Your task to perform on an android device: install app "Move to iOS" Image 0: 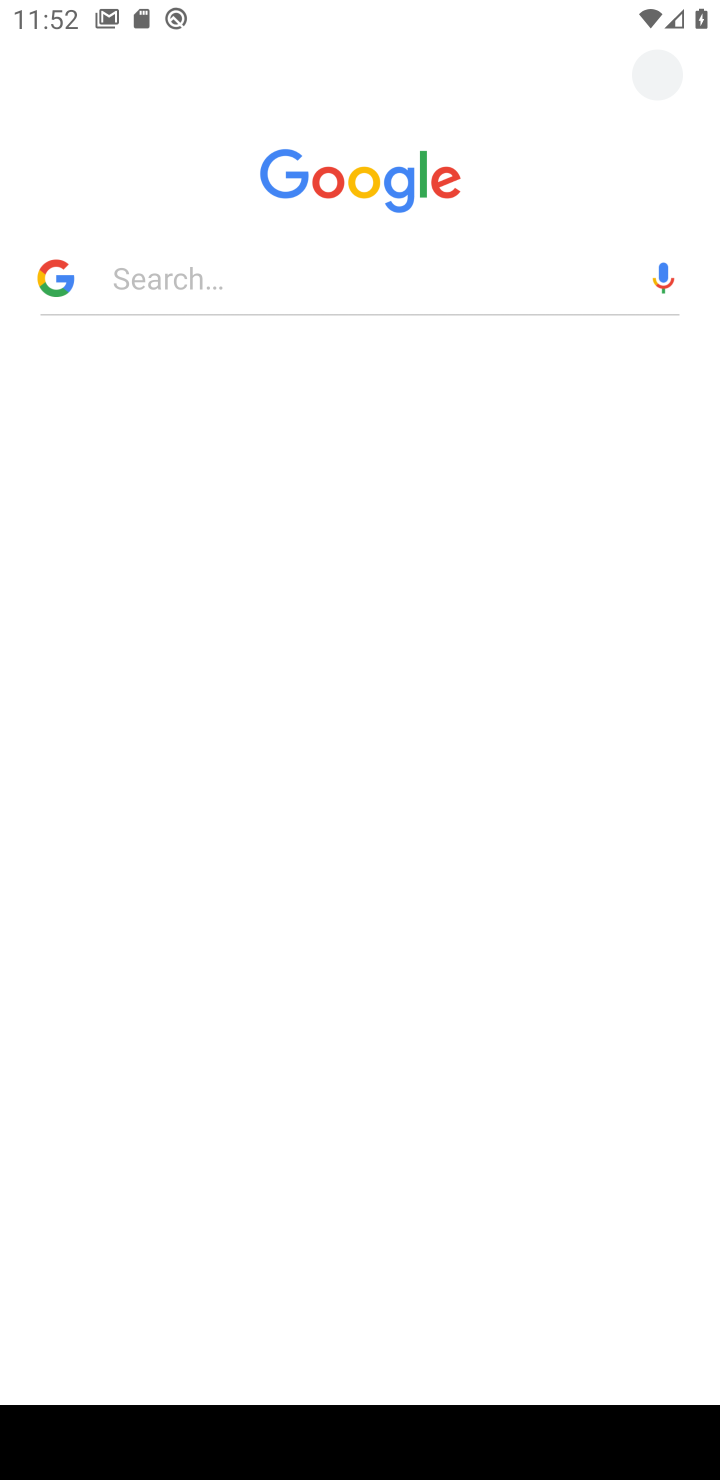
Step 0: press home button
Your task to perform on an android device: install app "Move to iOS" Image 1: 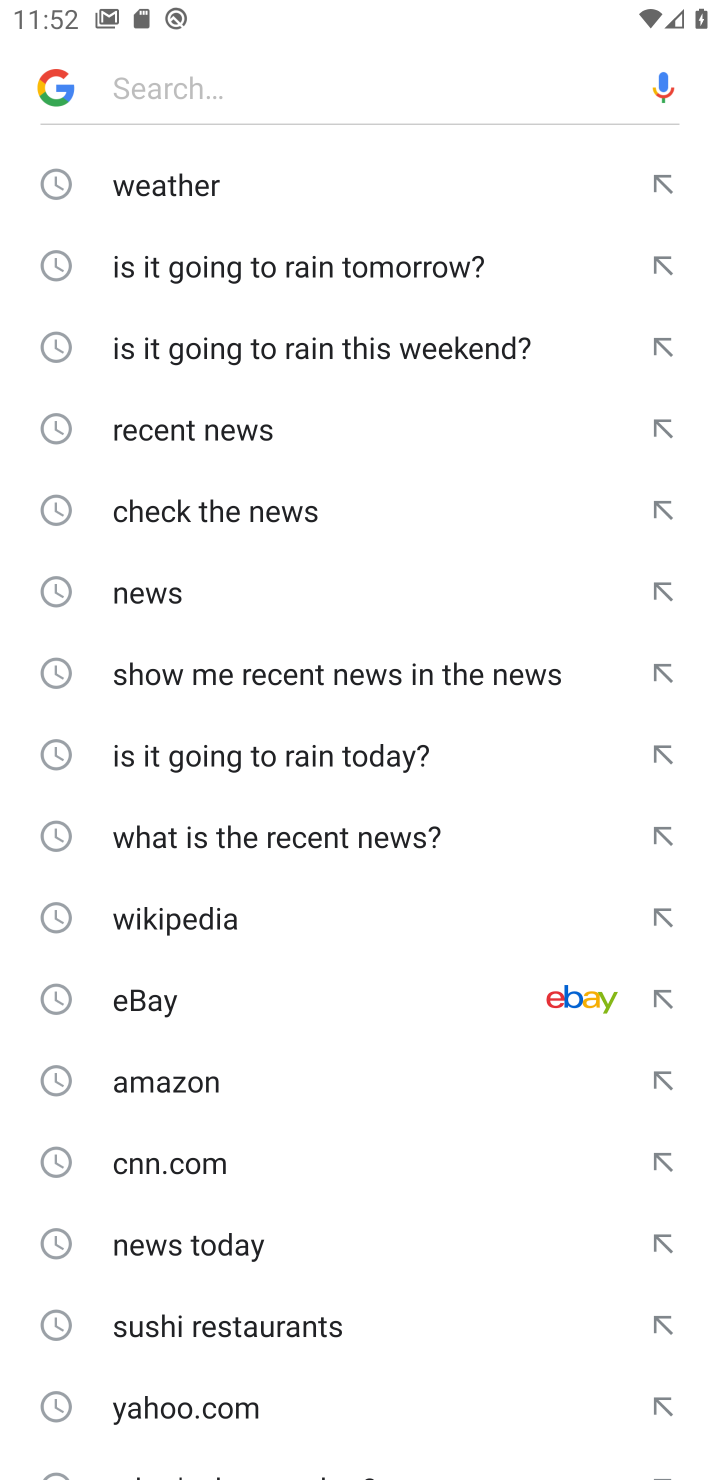
Step 1: press home button
Your task to perform on an android device: install app "Move to iOS" Image 2: 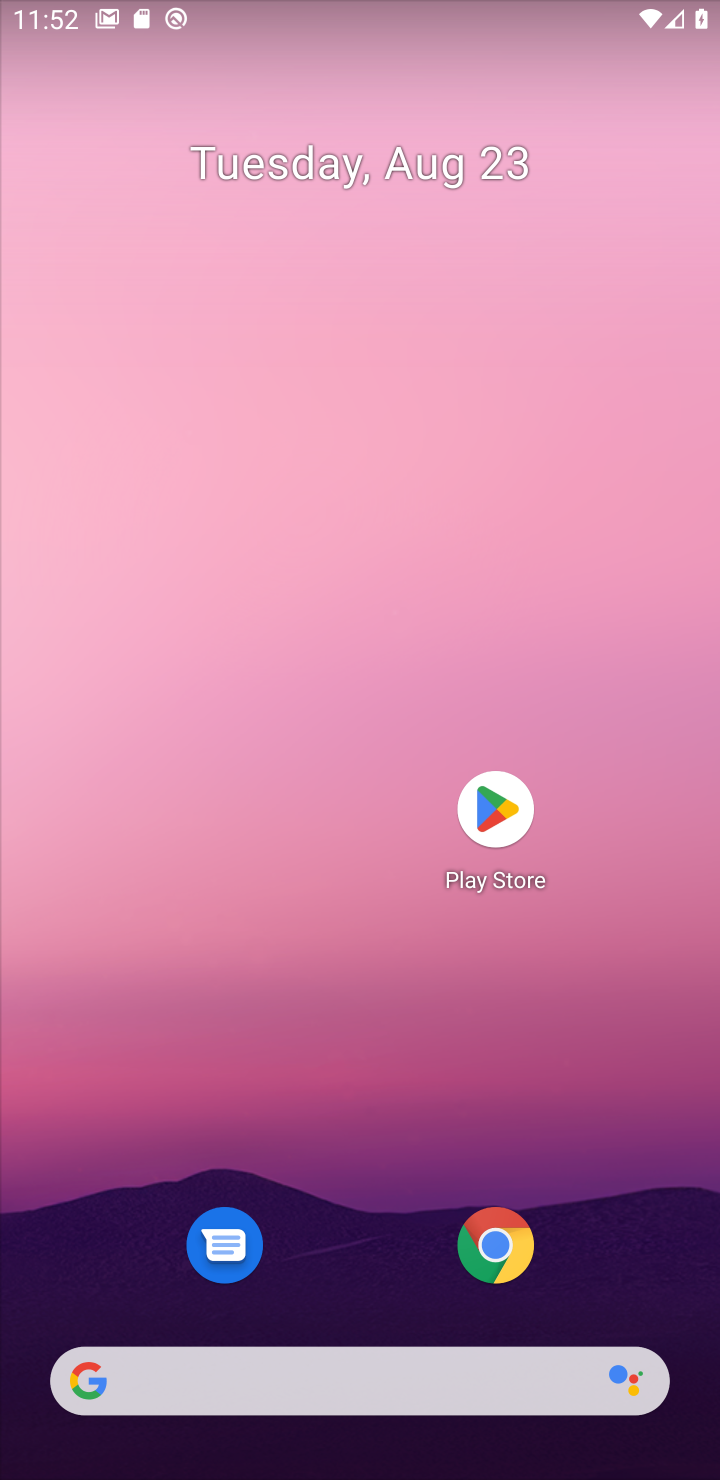
Step 2: press home button
Your task to perform on an android device: install app "Move to iOS" Image 3: 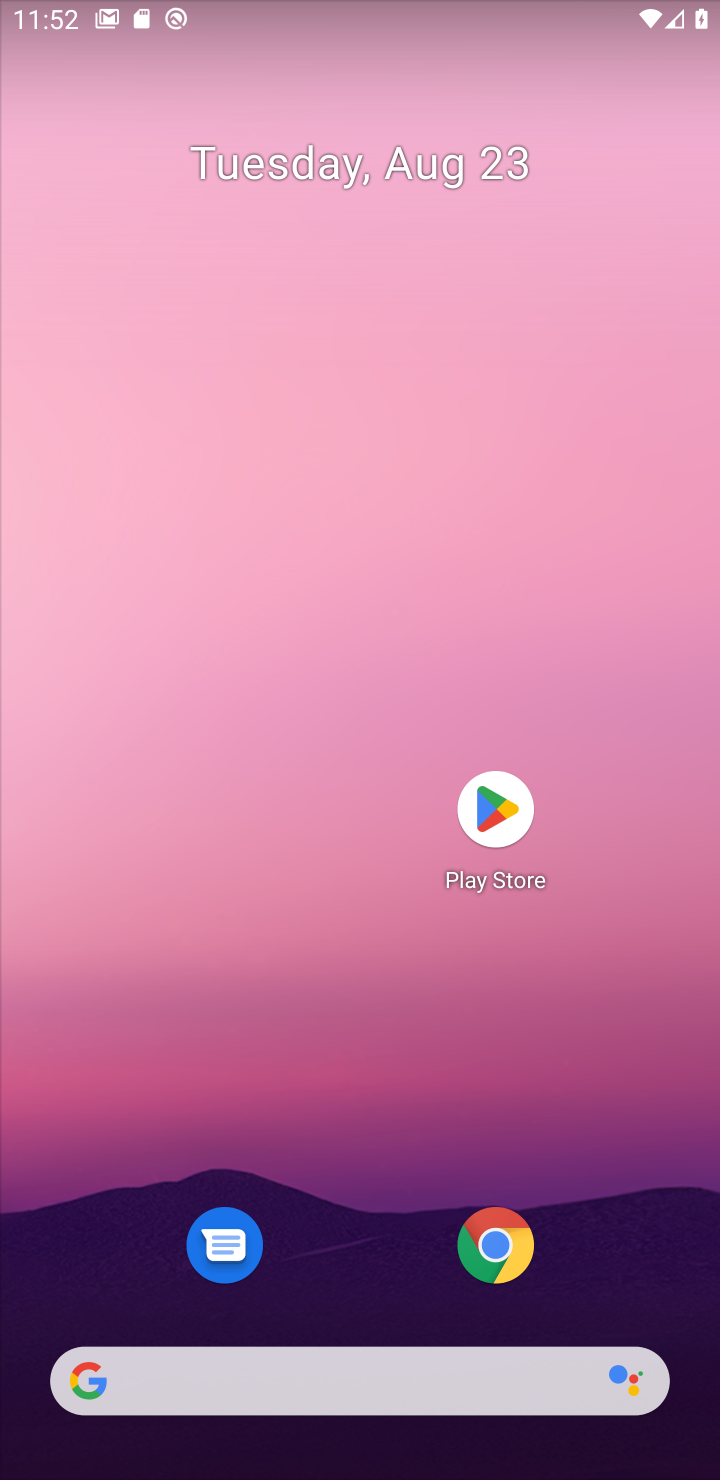
Step 3: click (484, 815)
Your task to perform on an android device: install app "Move to iOS" Image 4: 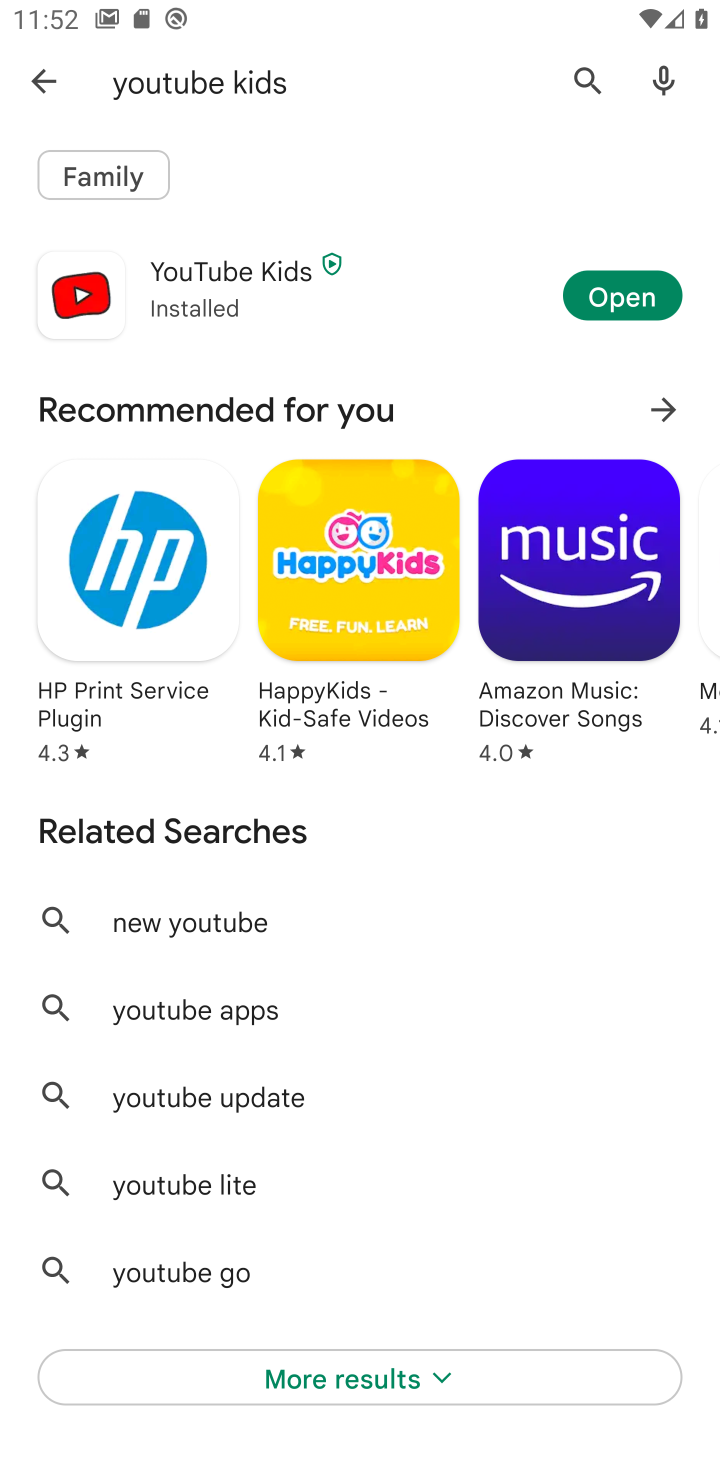
Step 4: click (590, 77)
Your task to perform on an android device: install app "Move to iOS" Image 5: 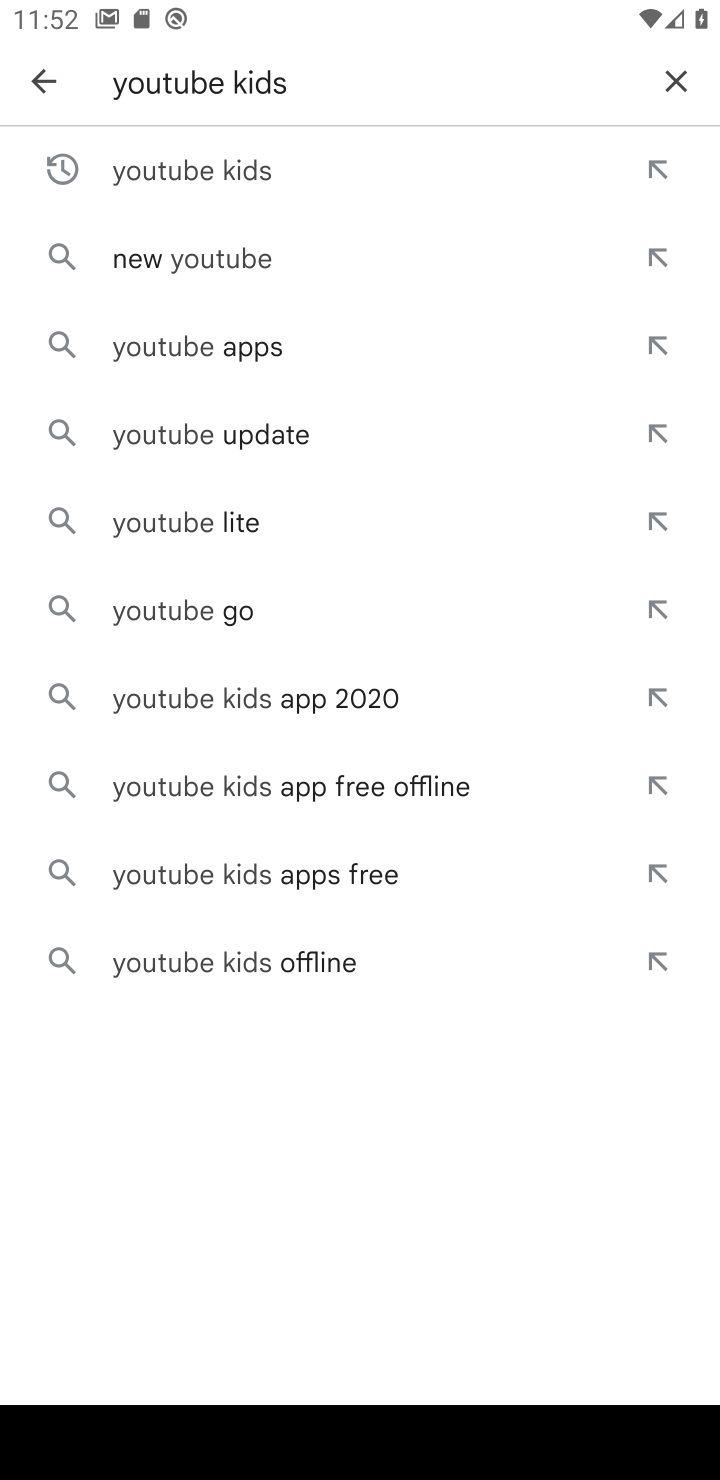
Step 5: click (674, 76)
Your task to perform on an android device: install app "Move to iOS" Image 6: 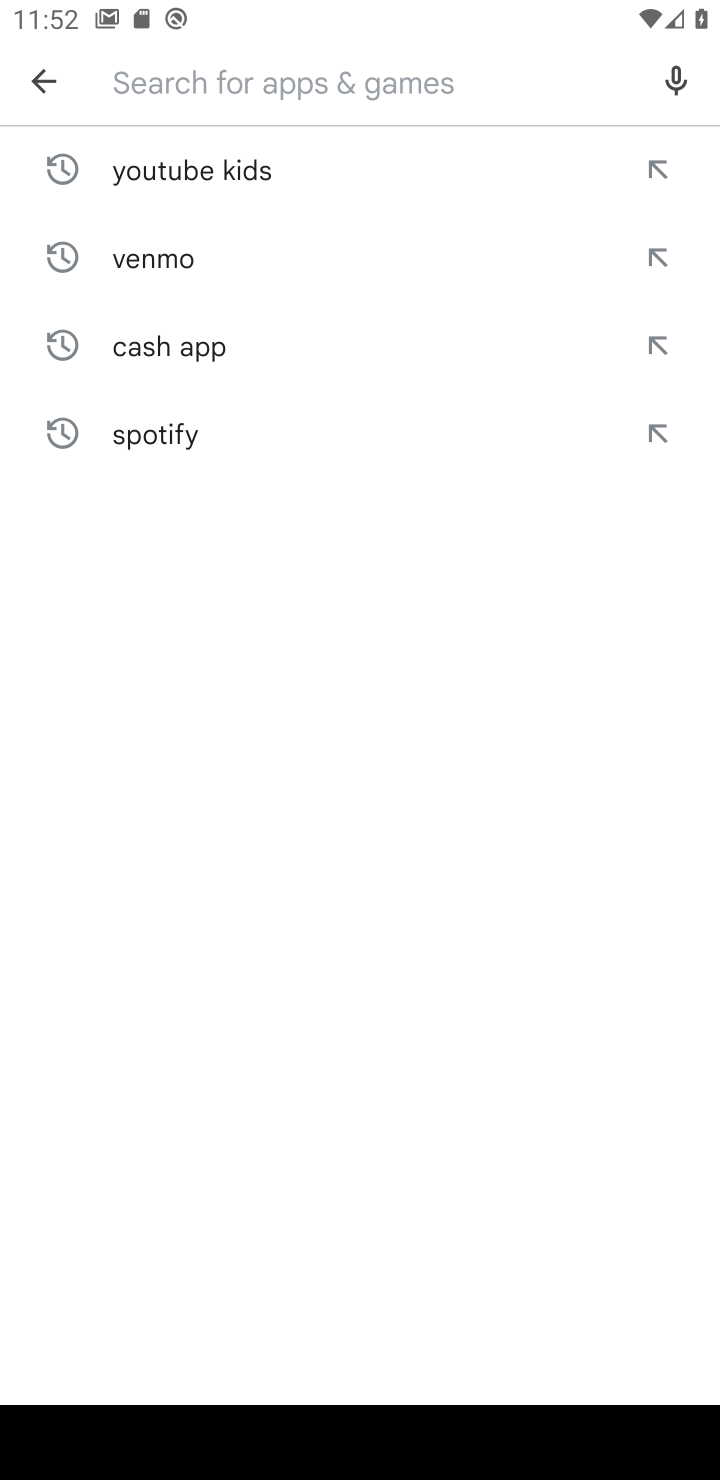
Step 6: type "Move to iOS"
Your task to perform on an android device: install app "Move to iOS" Image 7: 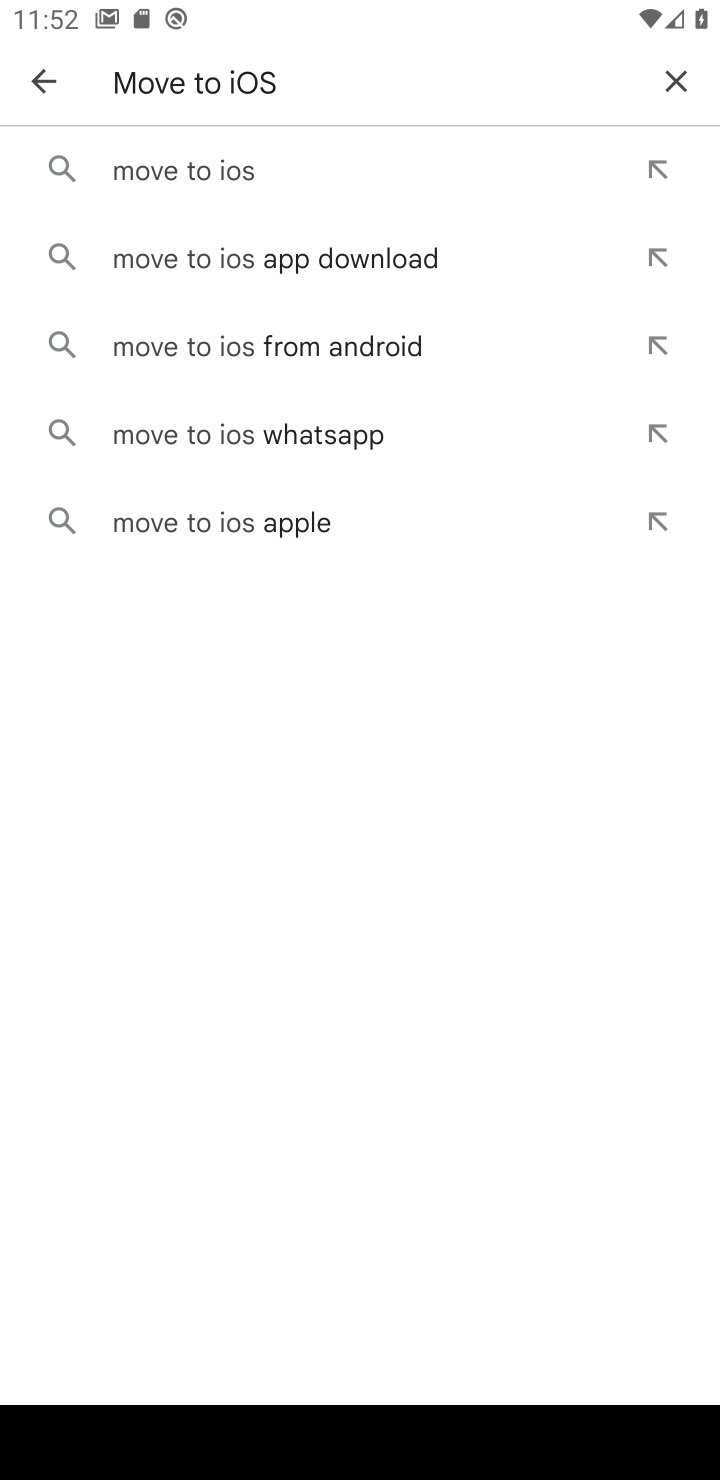
Step 7: click (184, 181)
Your task to perform on an android device: install app "Move to iOS" Image 8: 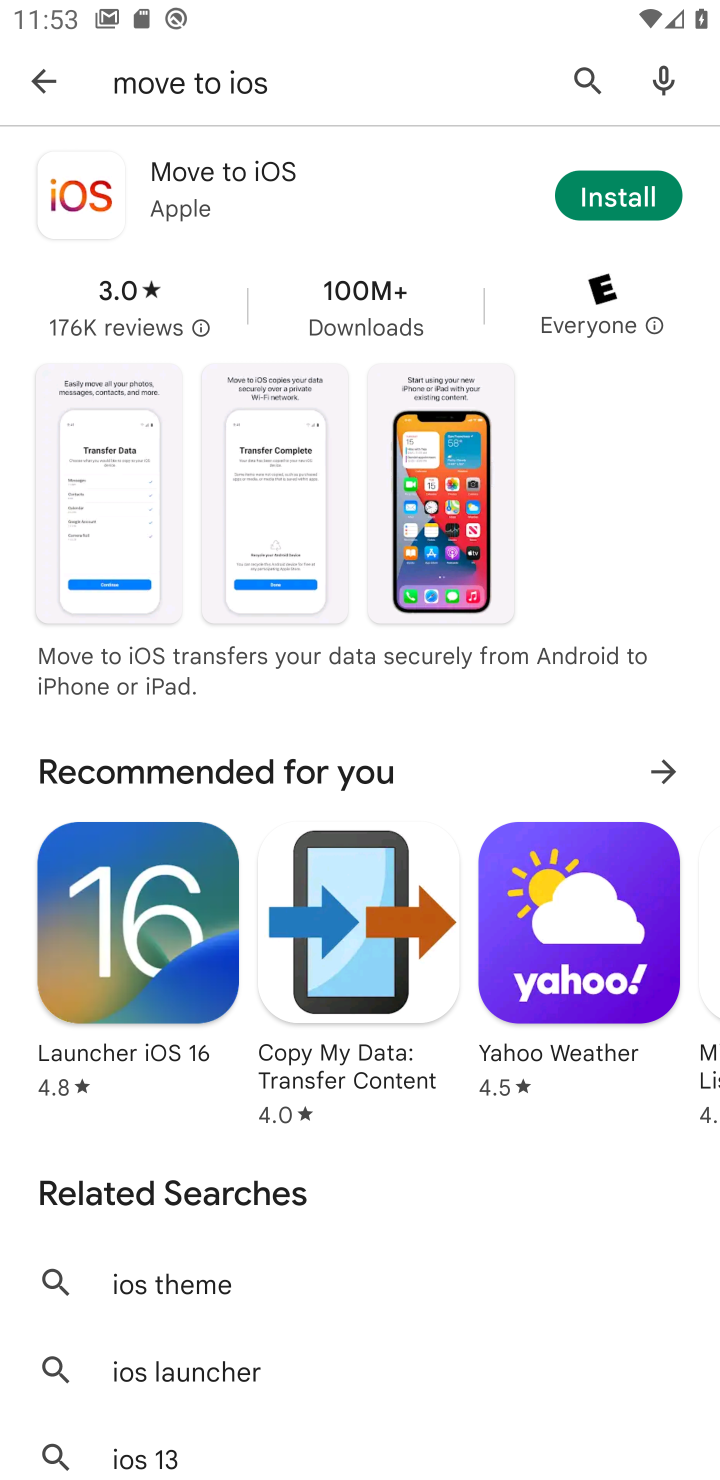
Step 8: click (608, 201)
Your task to perform on an android device: install app "Move to iOS" Image 9: 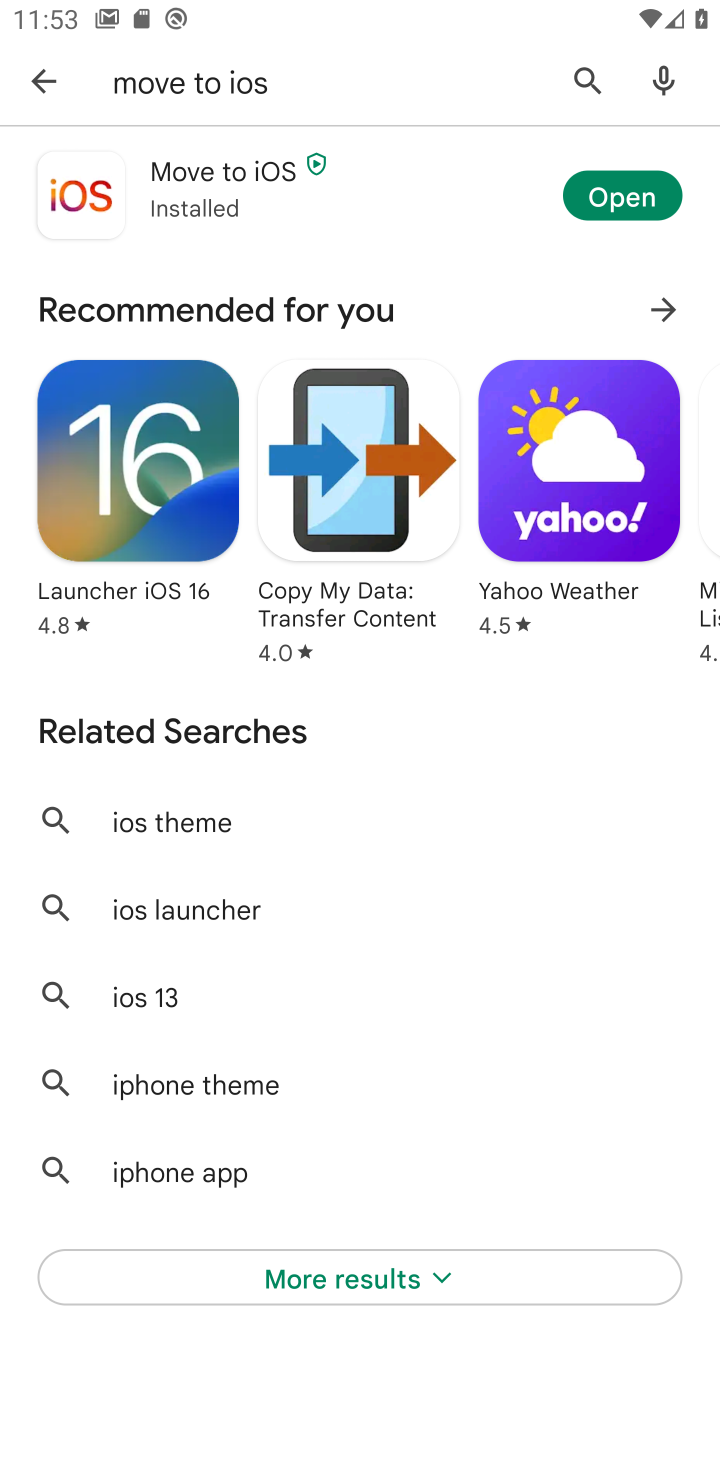
Step 9: task complete